Your task to perform on an android device: Go to CNN.com Image 0: 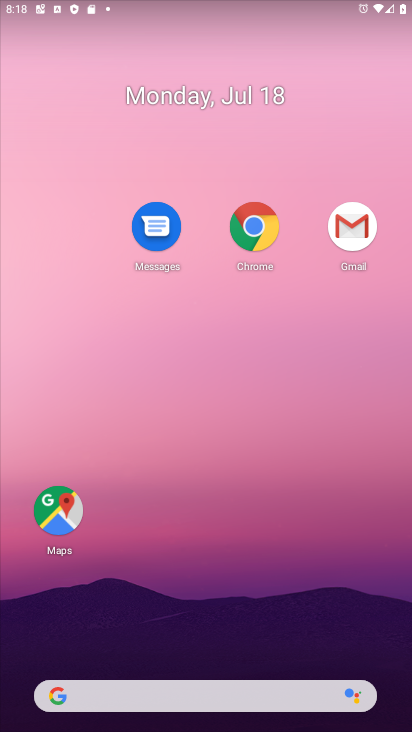
Step 0: press home button
Your task to perform on an android device: Go to CNN.com Image 1: 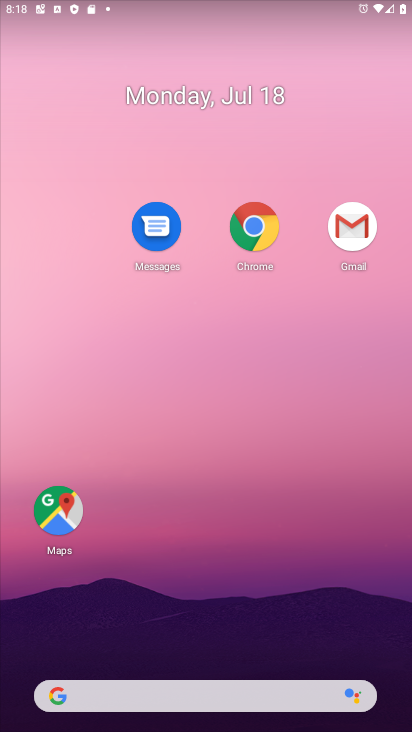
Step 1: click (246, 224)
Your task to perform on an android device: Go to CNN.com Image 2: 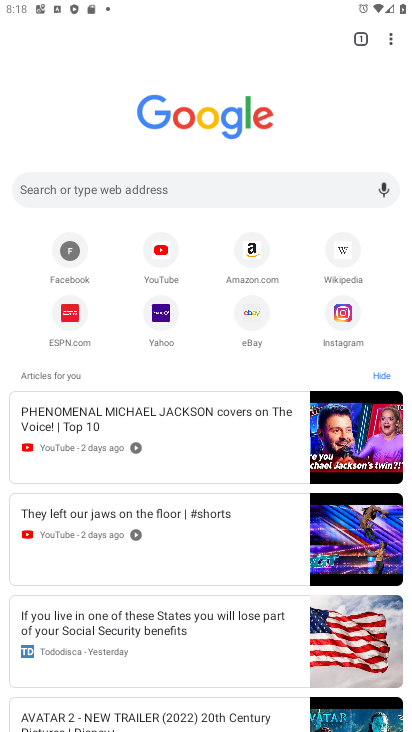
Step 2: click (122, 189)
Your task to perform on an android device: Go to CNN.com Image 3: 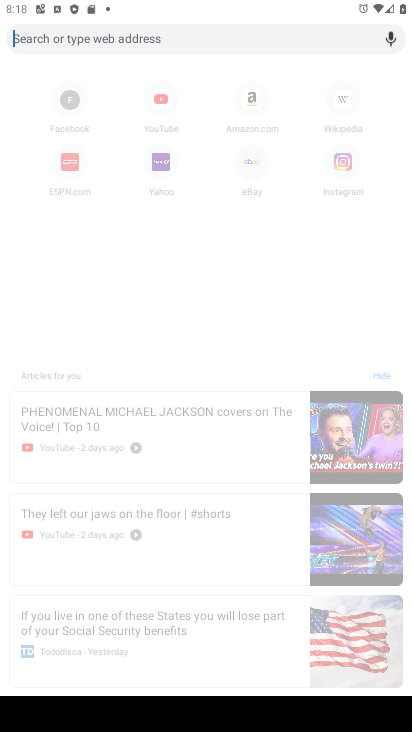
Step 3: type "cnn.com"
Your task to perform on an android device: Go to CNN.com Image 4: 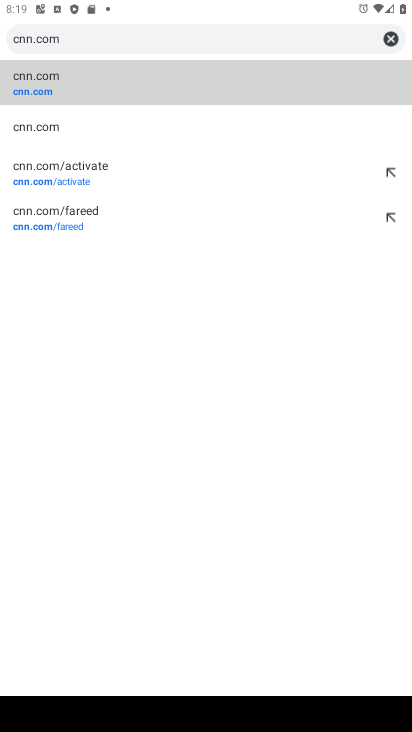
Step 4: click (61, 81)
Your task to perform on an android device: Go to CNN.com Image 5: 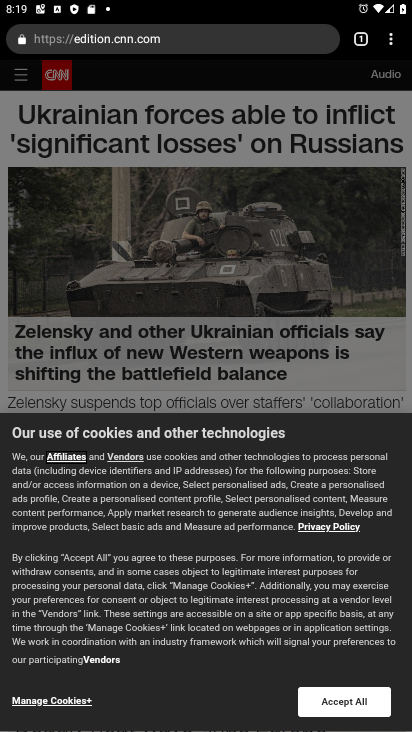
Step 5: click (343, 700)
Your task to perform on an android device: Go to CNN.com Image 6: 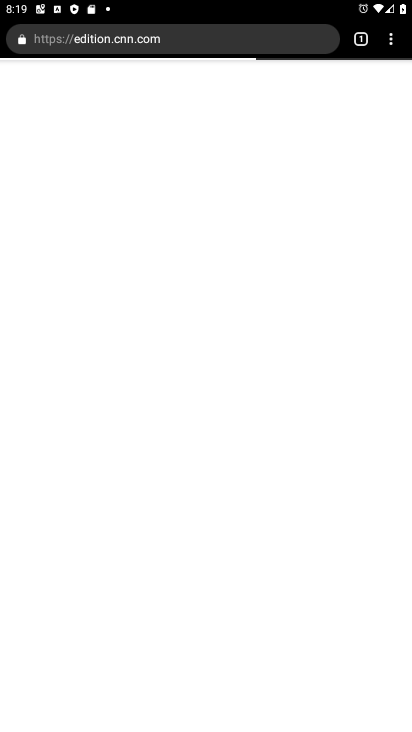
Step 6: task complete